Your task to perform on an android device: turn on sleep mode Image 0: 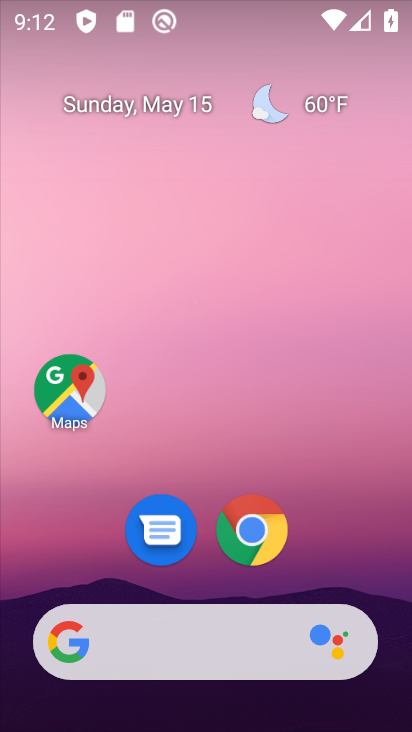
Step 0: press home button
Your task to perform on an android device: turn on sleep mode Image 1: 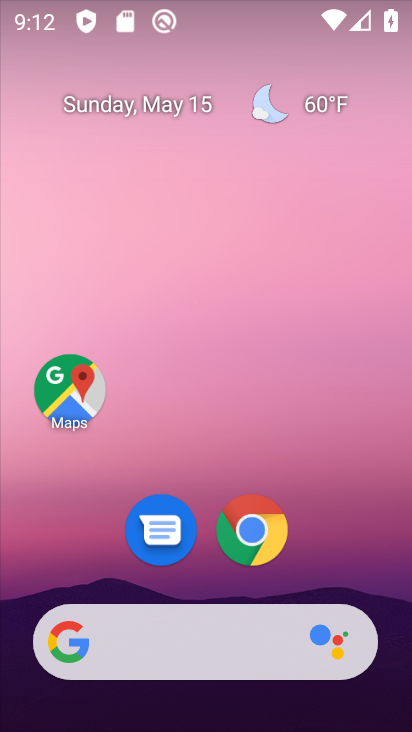
Step 1: drag from (382, 552) to (367, 128)
Your task to perform on an android device: turn on sleep mode Image 2: 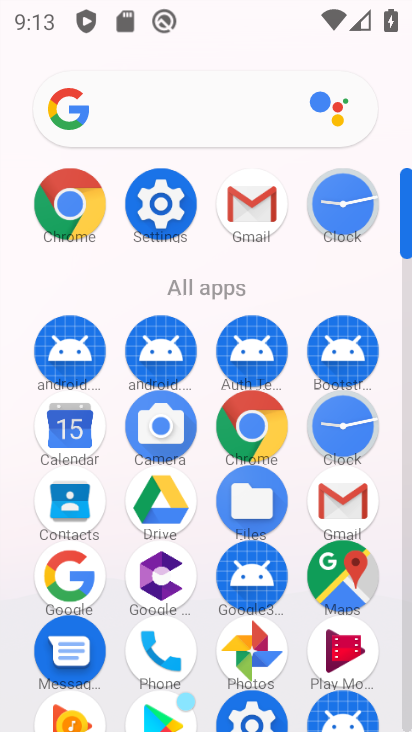
Step 2: click (164, 210)
Your task to perform on an android device: turn on sleep mode Image 3: 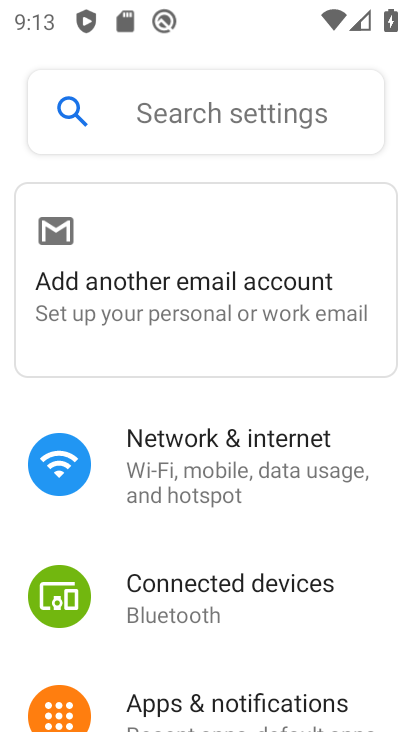
Step 3: drag from (370, 660) to (376, 429)
Your task to perform on an android device: turn on sleep mode Image 4: 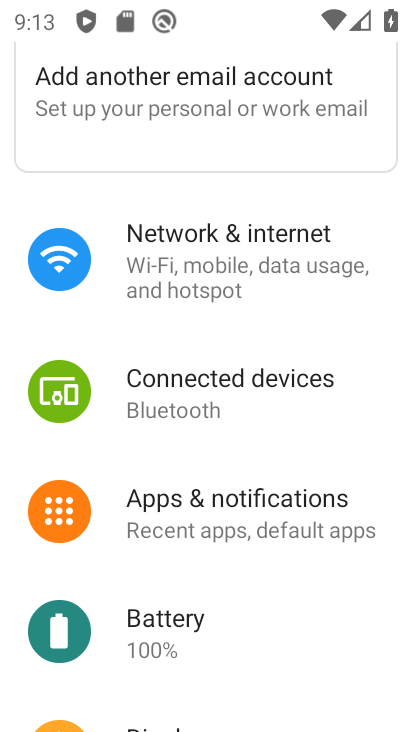
Step 4: drag from (360, 659) to (359, 476)
Your task to perform on an android device: turn on sleep mode Image 5: 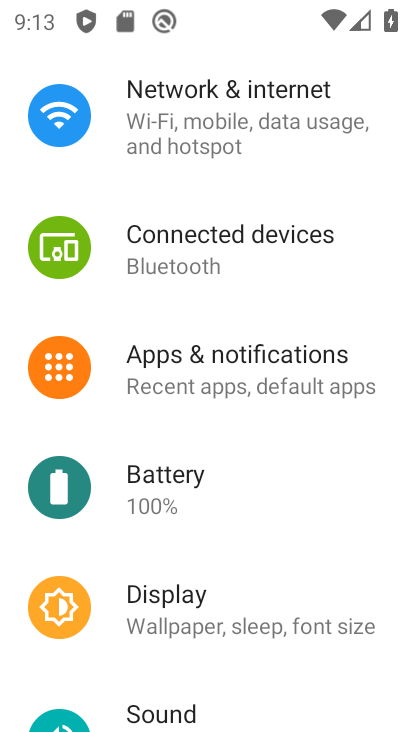
Step 5: drag from (376, 677) to (383, 492)
Your task to perform on an android device: turn on sleep mode Image 6: 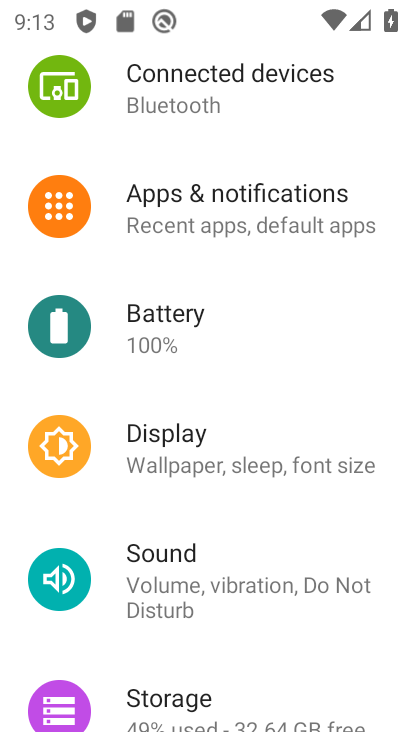
Step 6: click (279, 463)
Your task to perform on an android device: turn on sleep mode Image 7: 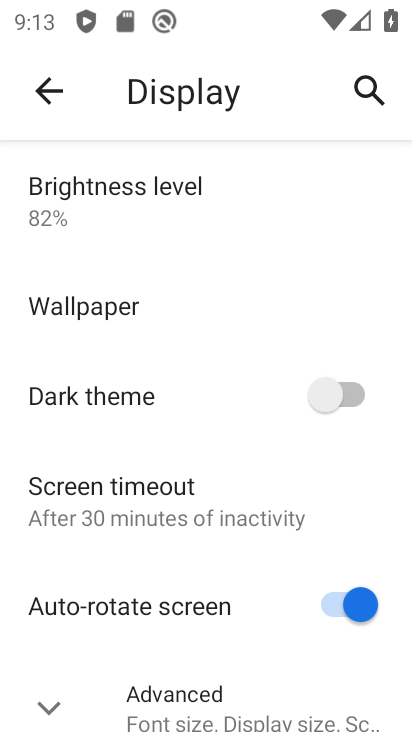
Step 7: drag from (274, 661) to (290, 432)
Your task to perform on an android device: turn on sleep mode Image 8: 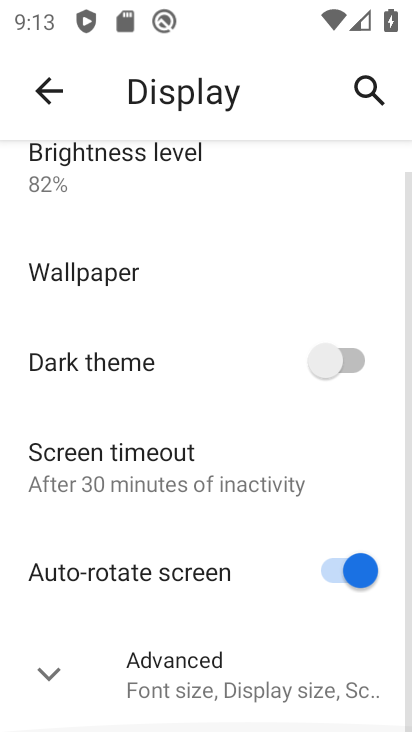
Step 8: click (272, 689)
Your task to perform on an android device: turn on sleep mode Image 9: 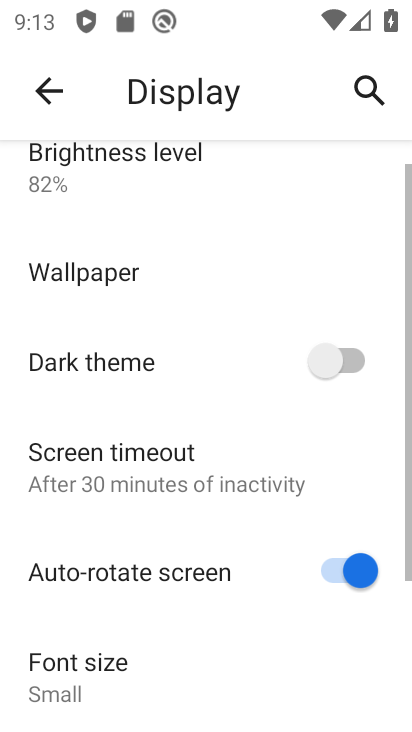
Step 9: task complete